Your task to perform on an android device: Go to Wikipedia Image 0: 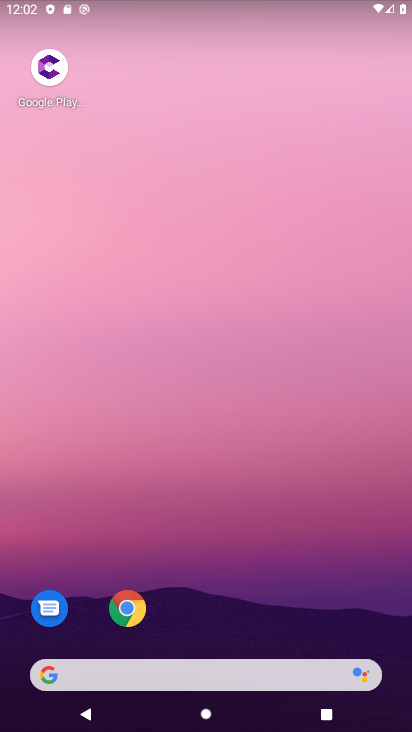
Step 0: click (381, 368)
Your task to perform on an android device: Go to Wikipedia Image 1: 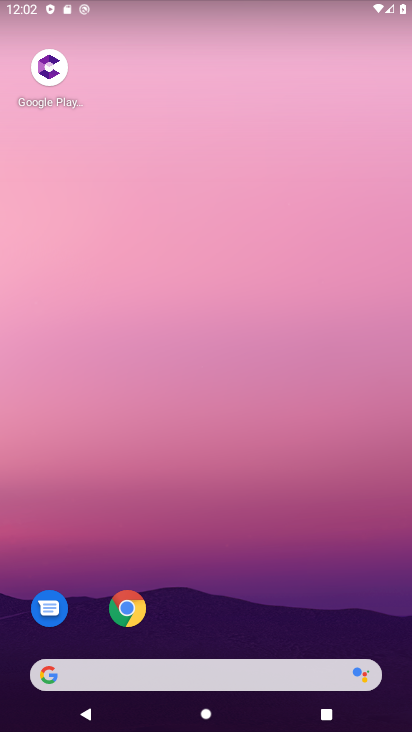
Step 1: drag from (280, 578) to (204, 248)
Your task to perform on an android device: Go to Wikipedia Image 2: 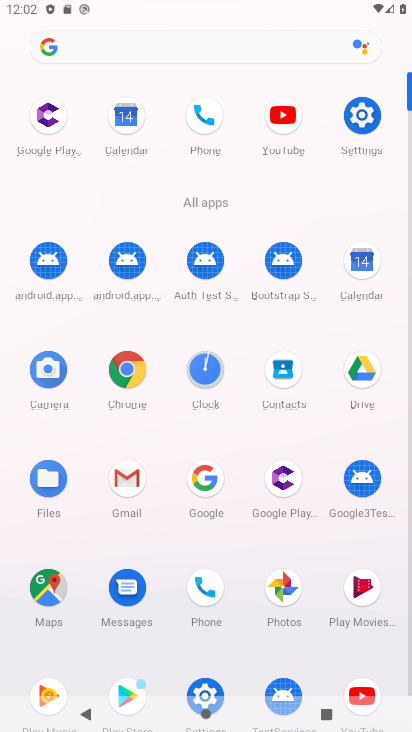
Step 2: click (127, 361)
Your task to perform on an android device: Go to Wikipedia Image 3: 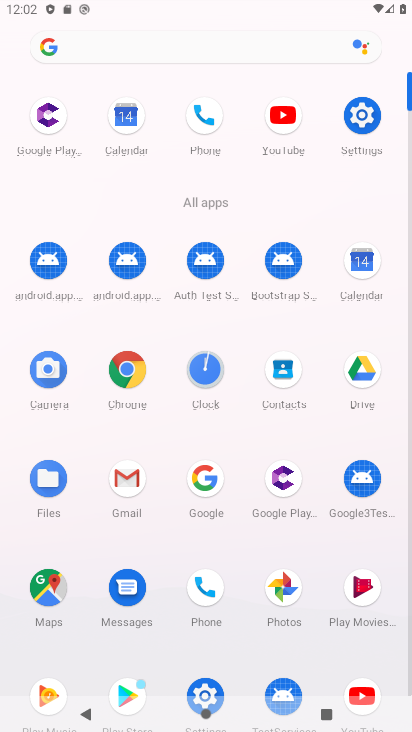
Step 3: click (132, 369)
Your task to perform on an android device: Go to Wikipedia Image 4: 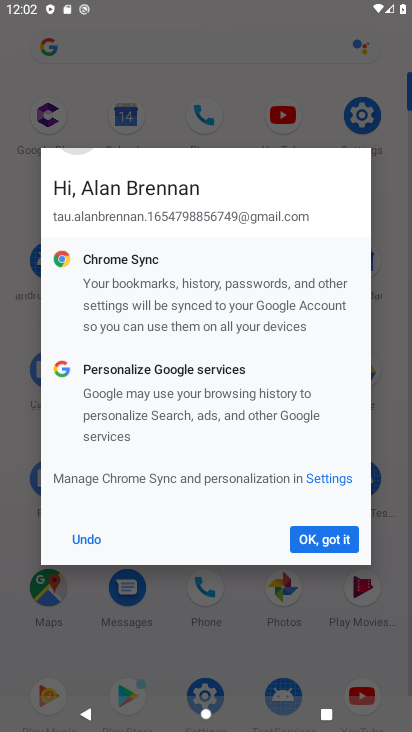
Step 4: click (128, 368)
Your task to perform on an android device: Go to Wikipedia Image 5: 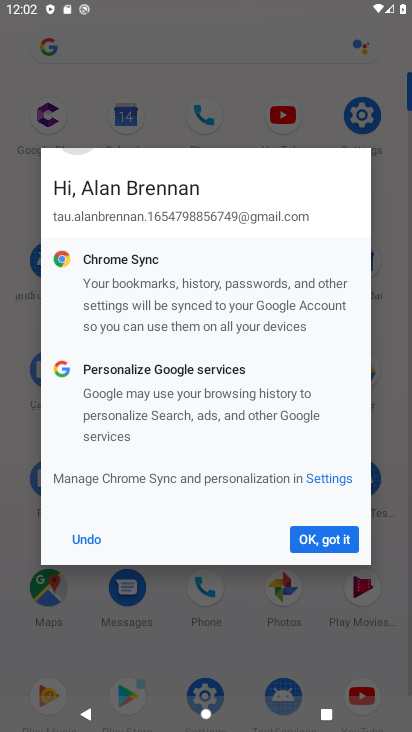
Step 5: click (81, 539)
Your task to perform on an android device: Go to Wikipedia Image 6: 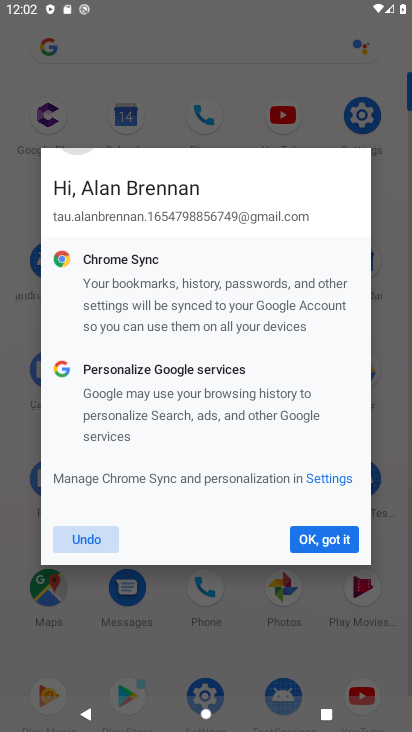
Step 6: click (81, 539)
Your task to perform on an android device: Go to Wikipedia Image 7: 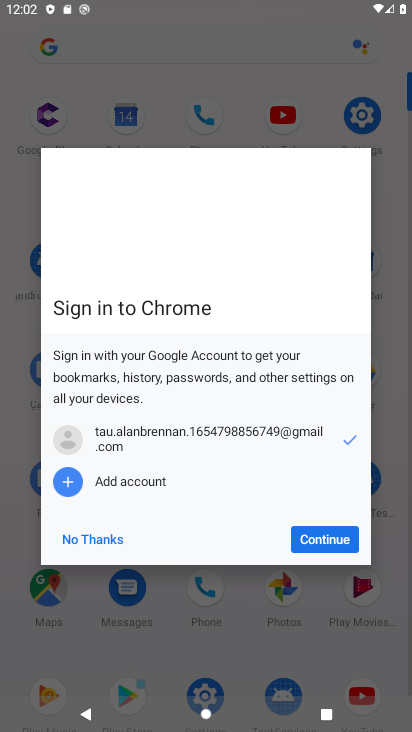
Step 7: click (81, 539)
Your task to perform on an android device: Go to Wikipedia Image 8: 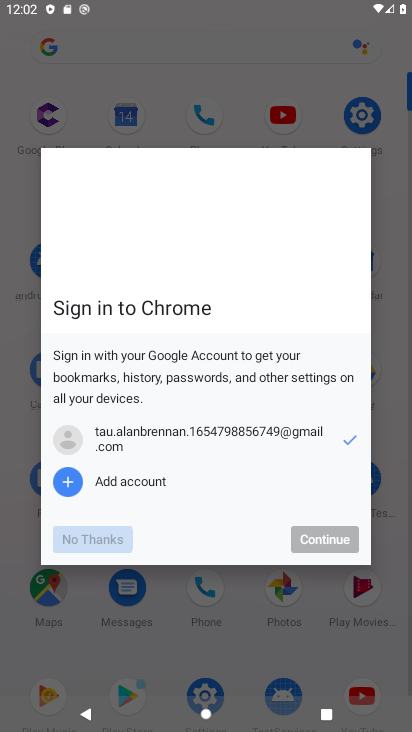
Step 8: click (82, 539)
Your task to perform on an android device: Go to Wikipedia Image 9: 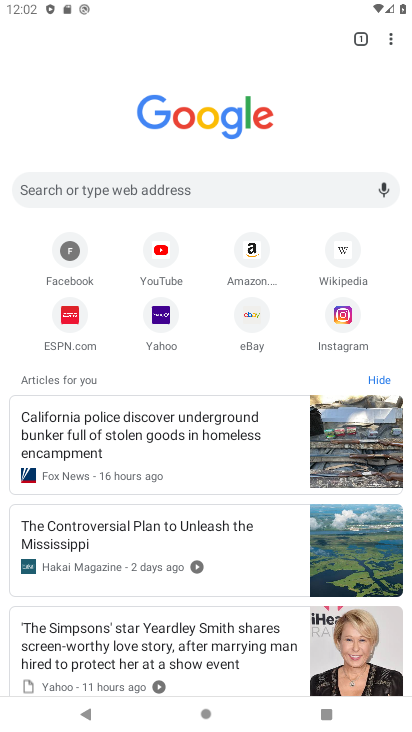
Step 9: click (342, 251)
Your task to perform on an android device: Go to Wikipedia Image 10: 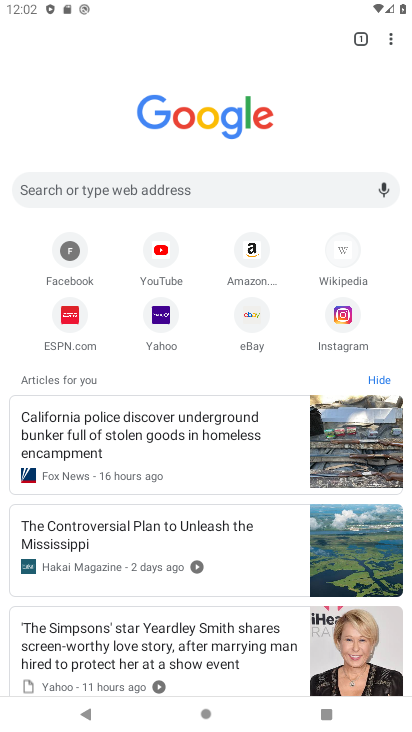
Step 10: click (342, 251)
Your task to perform on an android device: Go to Wikipedia Image 11: 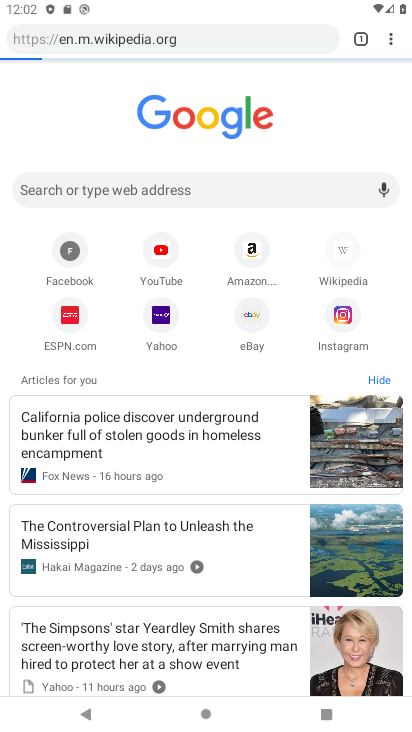
Step 11: click (342, 251)
Your task to perform on an android device: Go to Wikipedia Image 12: 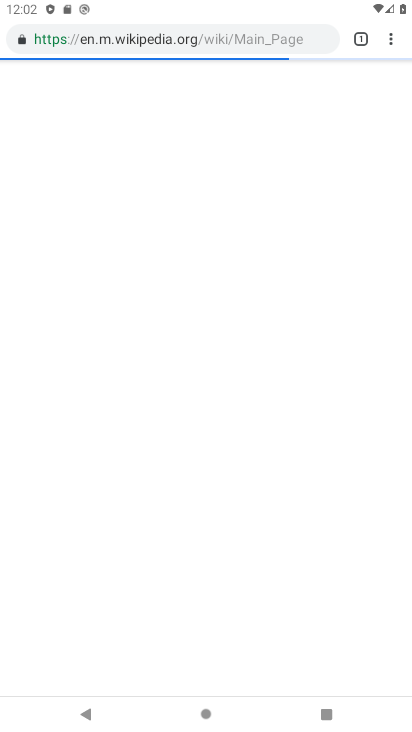
Step 12: click (342, 251)
Your task to perform on an android device: Go to Wikipedia Image 13: 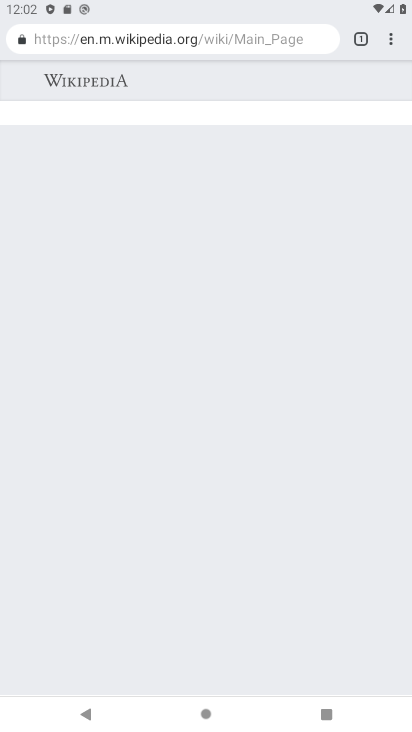
Step 13: task complete